Your task to perform on an android device: change your default location settings in chrome Image 0: 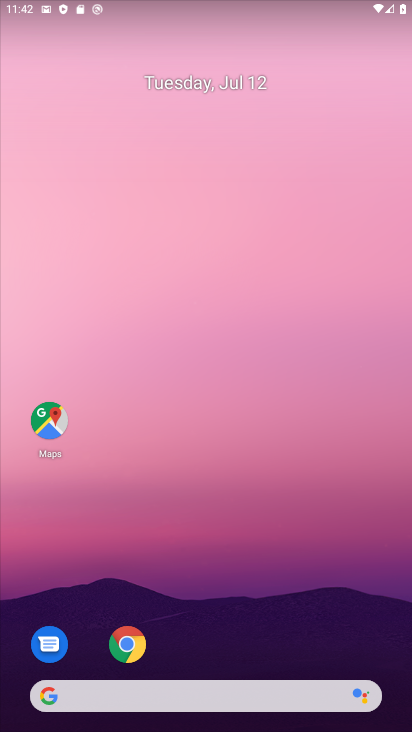
Step 0: click (122, 645)
Your task to perform on an android device: change your default location settings in chrome Image 1: 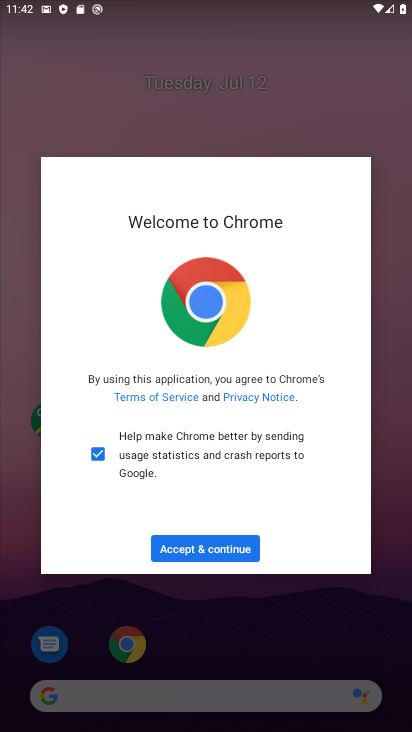
Step 1: click (161, 554)
Your task to perform on an android device: change your default location settings in chrome Image 2: 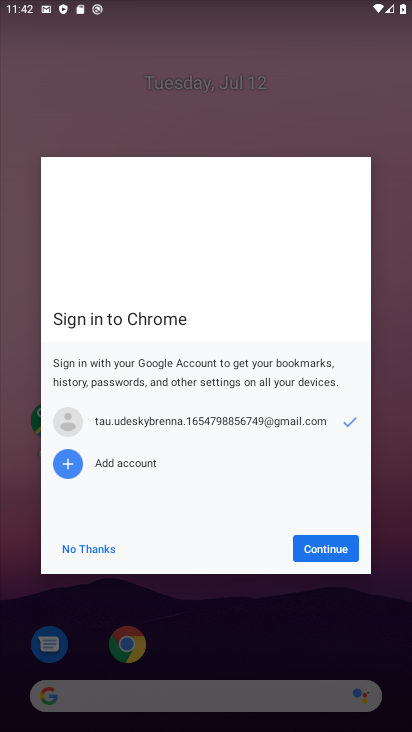
Step 2: click (307, 549)
Your task to perform on an android device: change your default location settings in chrome Image 3: 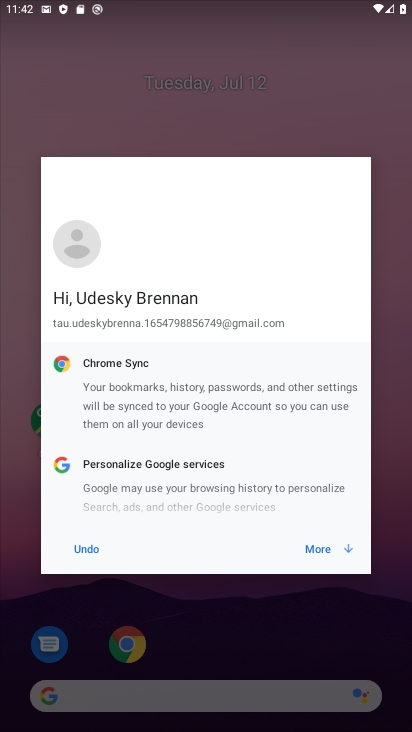
Step 3: click (346, 545)
Your task to perform on an android device: change your default location settings in chrome Image 4: 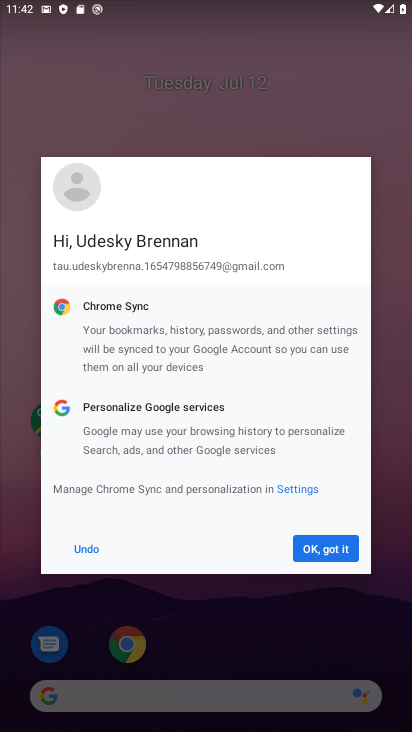
Step 4: click (341, 556)
Your task to perform on an android device: change your default location settings in chrome Image 5: 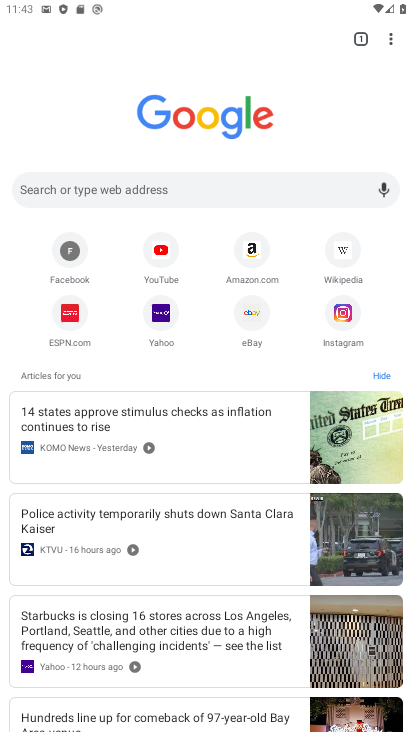
Step 5: click (388, 35)
Your task to perform on an android device: change your default location settings in chrome Image 6: 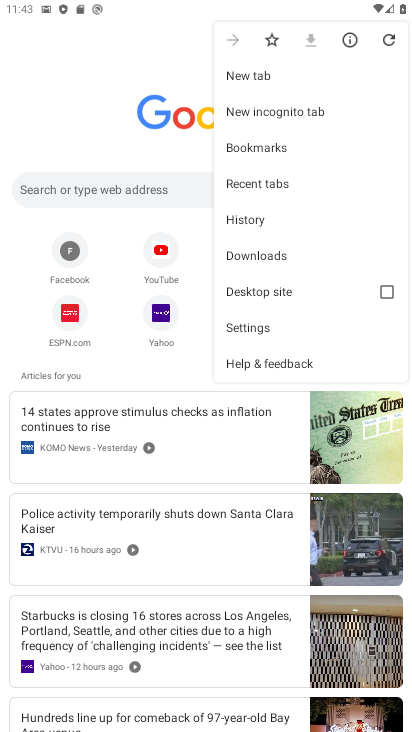
Step 6: click (260, 327)
Your task to perform on an android device: change your default location settings in chrome Image 7: 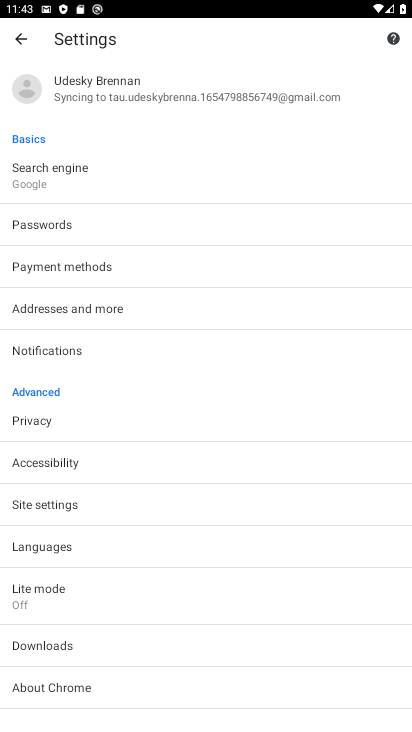
Step 7: click (53, 500)
Your task to perform on an android device: change your default location settings in chrome Image 8: 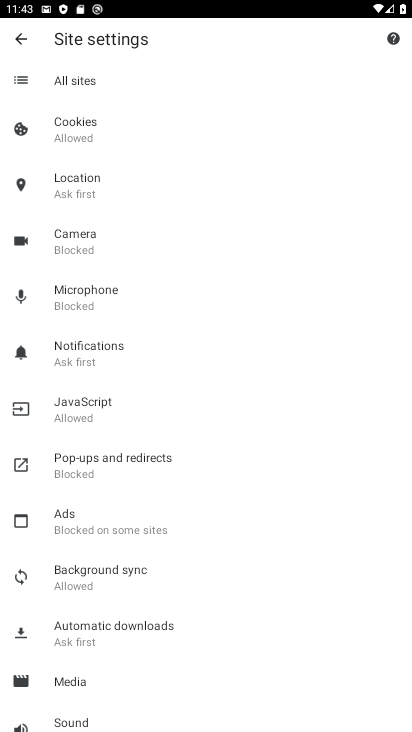
Step 8: click (69, 184)
Your task to perform on an android device: change your default location settings in chrome Image 9: 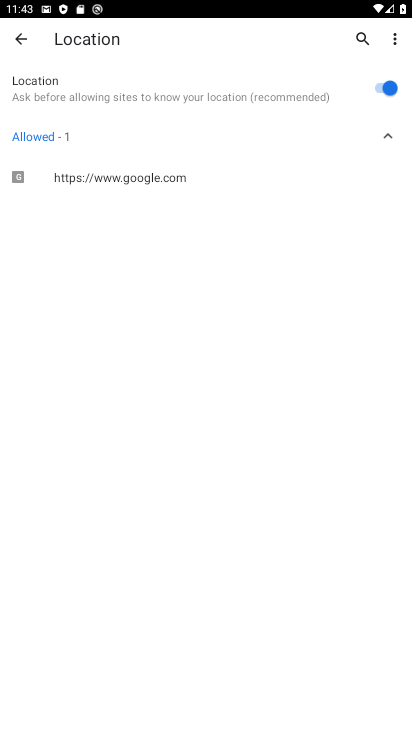
Step 9: click (380, 82)
Your task to perform on an android device: change your default location settings in chrome Image 10: 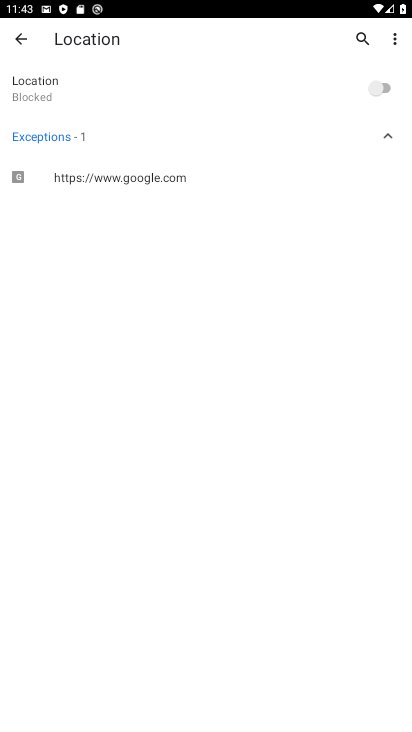
Step 10: task complete